Your task to perform on an android device: Do I have any events this weekend? Image 0: 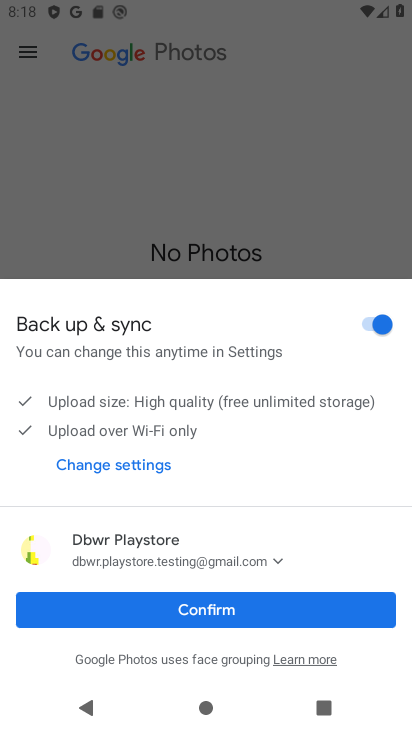
Step 0: press back button
Your task to perform on an android device: Do I have any events this weekend? Image 1: 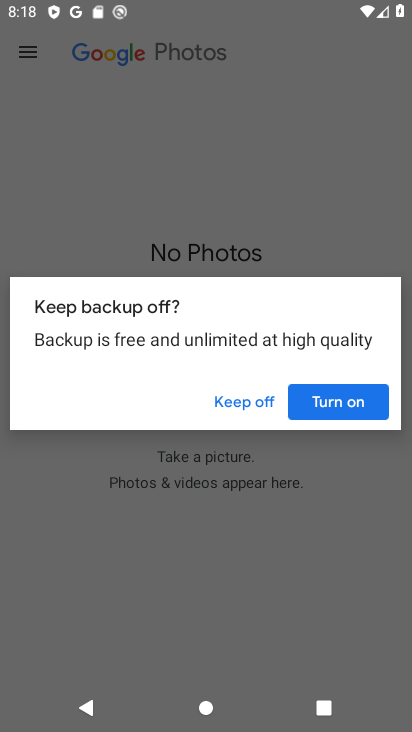
Step 1: press home button
Your task to perform on an android device: Do I have any events this weekend? Image 2: 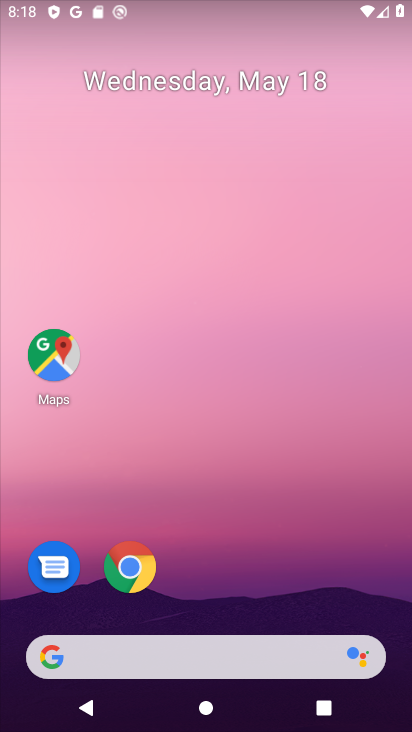
Step 2: drag from (233, 573) to (218, 9)
Your task to perform on an android device: Do I have any events this weekend? Image 3: 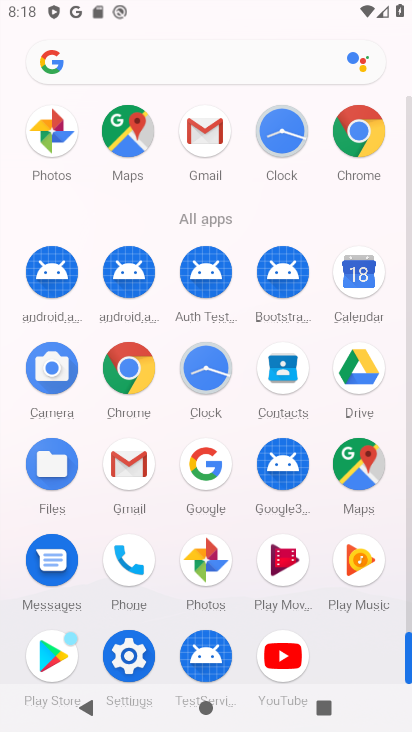
Step 3: drag from (0, 562) to (0, 315)
Your task to perform on an android device: Do I have any events this weekend? Image 4: 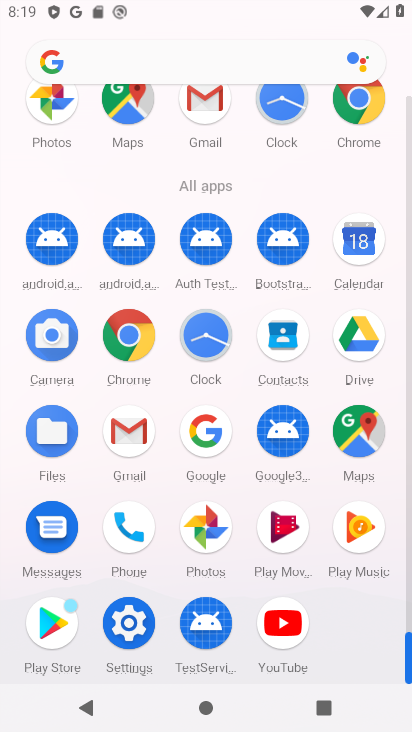
Step 4: click (357, 238)
Your task to perform on an android device: Do I have any events this weekend? Image 5: 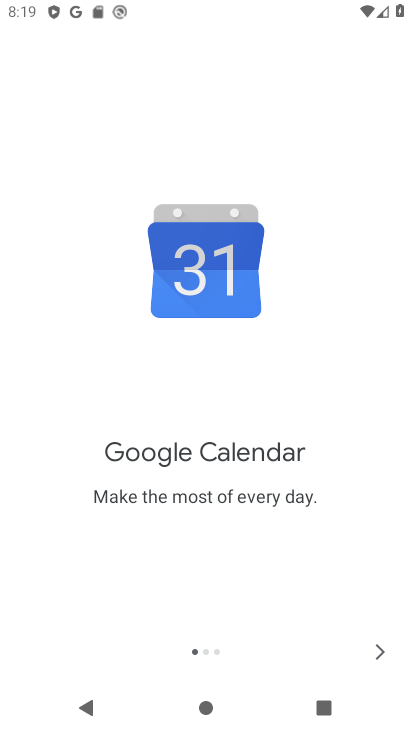
Step 5: click (370, 662)
Your task to perform on an android device: Do I have any events this weekend? Image 6: 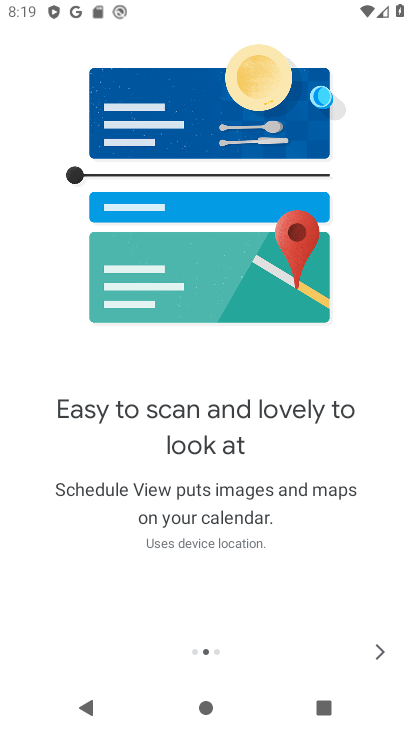
Step 6: click (374, 648)
Your task to perform on an android device: Do I have any events this weekend? Image 7: 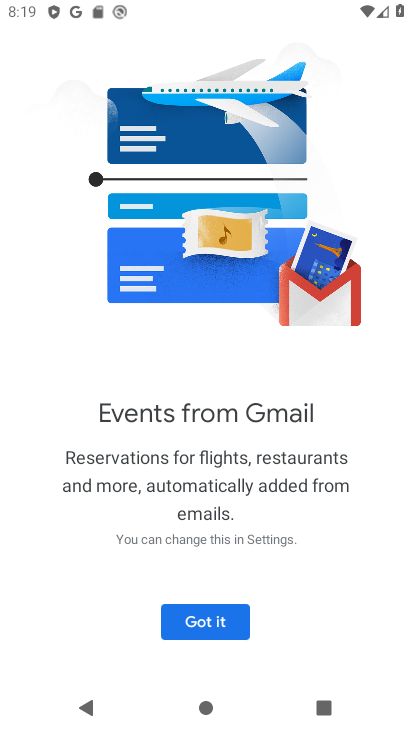
Step 7: click (180, 616)
Your task to perform on an android device: Do I have any events this weekend? Image 8: 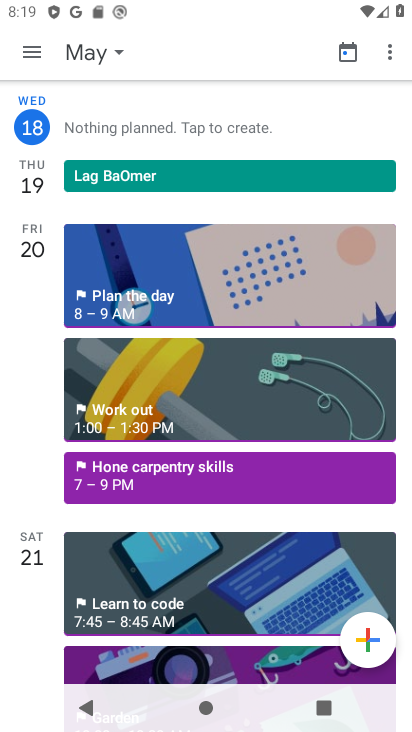
Step 8: click (92, 50)
Your task to perform on an android device: Do I have any events this weekend? Image 9: 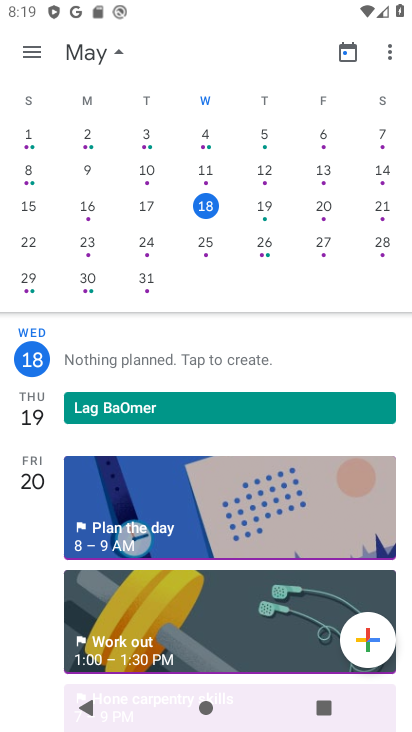
Step 9: click (385, 200)
Your task to perform on an android device: Do I have any events this weekend? Image 10: 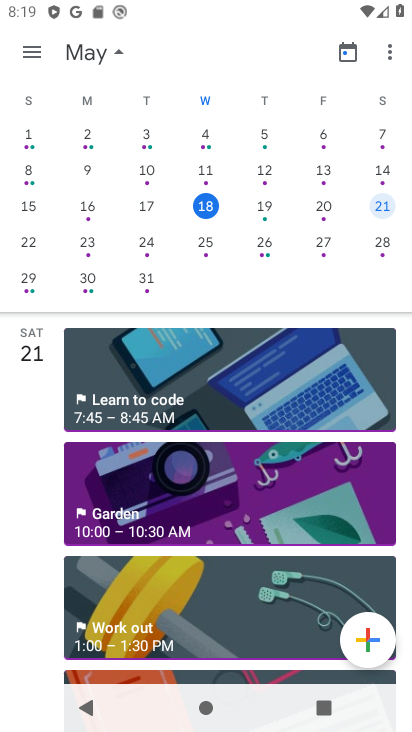
Step 10: click (27, 50)
Your task to perform on an android device: Do I have any events this weekend? Image 11: 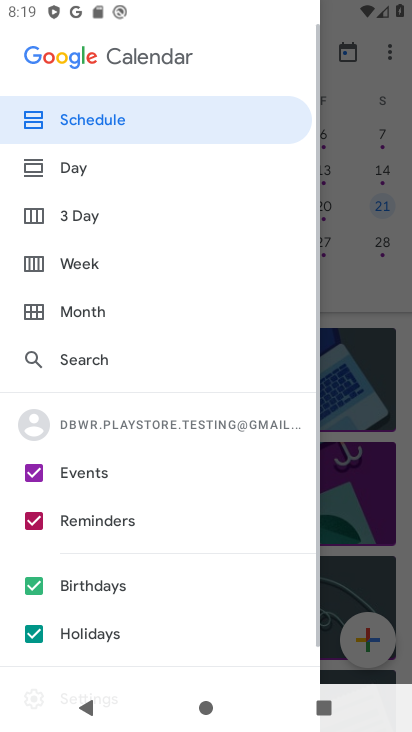
Step 11: click (95, 166)
Your task to perform on an android device: Do I have any events this weekend? Image 12: 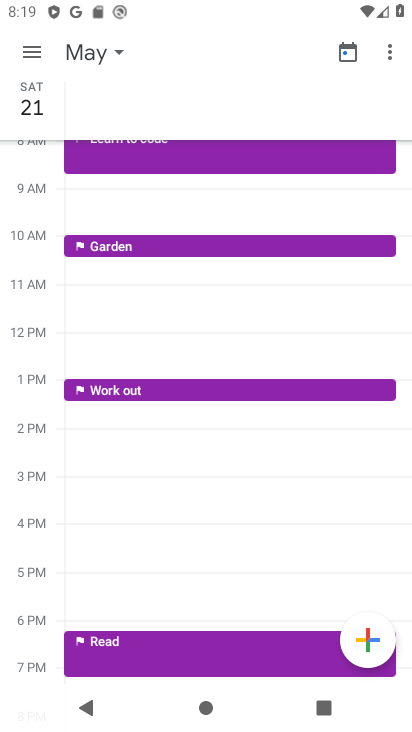
Step 12: task complete